Your task to perform on an android device: Open Yahoo.com Image 0: 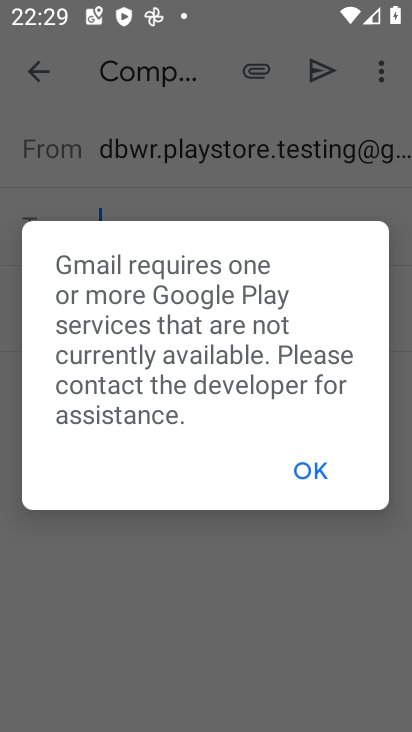
Step 0: press home button
Your task to perform on an android device: Open Yahoo.com Image 1: 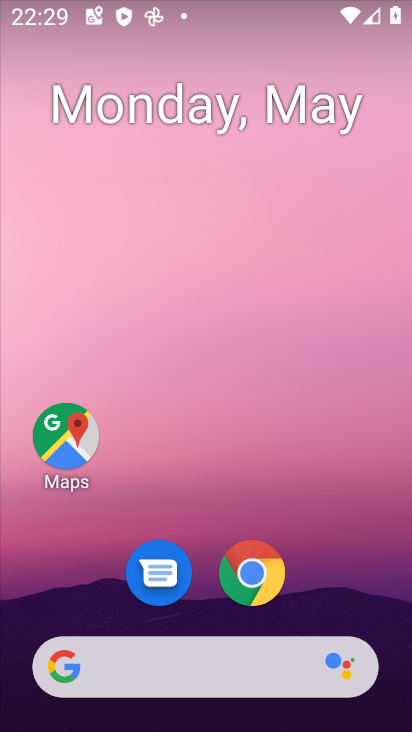
Step 1: drag from (350, 581) to (237, 40)
Your task to perform on an android device: Open Yahoo.com Image 2: 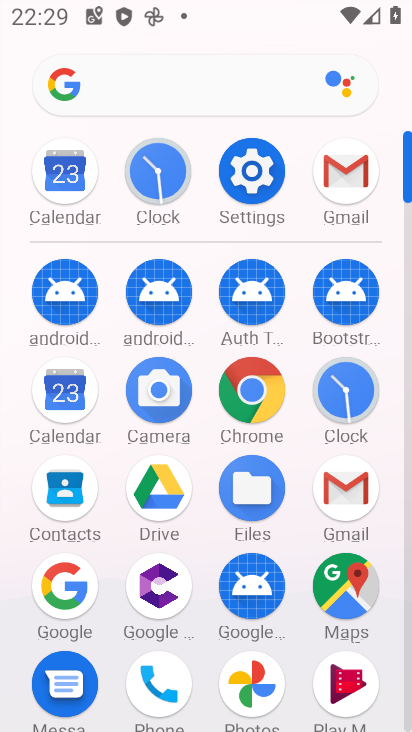
Step 2: click (249, 397)
Your task to perform on an android device: Open Yahoo.com Image 3: 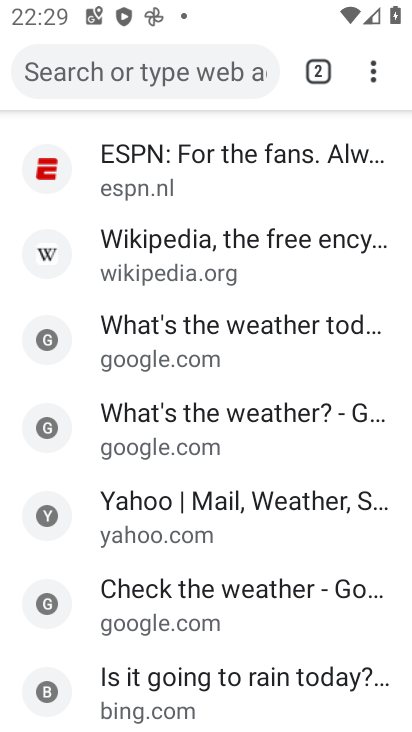
Step 3: click (195, 514)
Your task to perform on an android device: Open Yahoo.com Image 4: 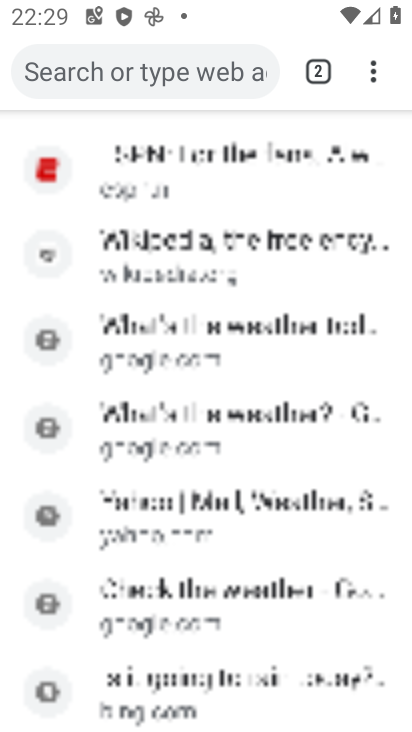
Step 4: task complete